Your task to perform on an android device: set an alarm Image 0: 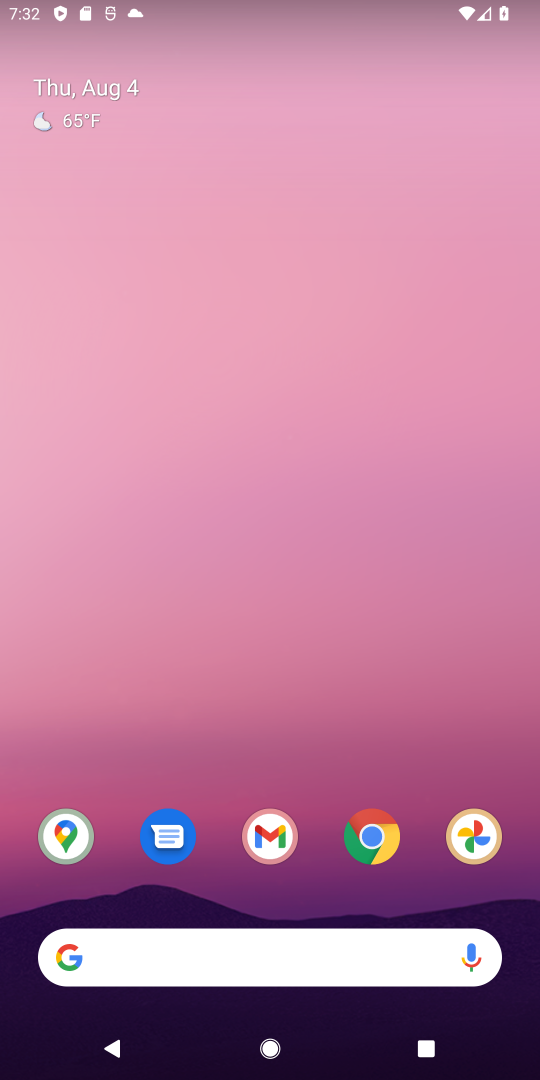
Step 0: drag from (247, 852) to (231, 101)
Your task to perform on an android device: set an alarm Image 1: 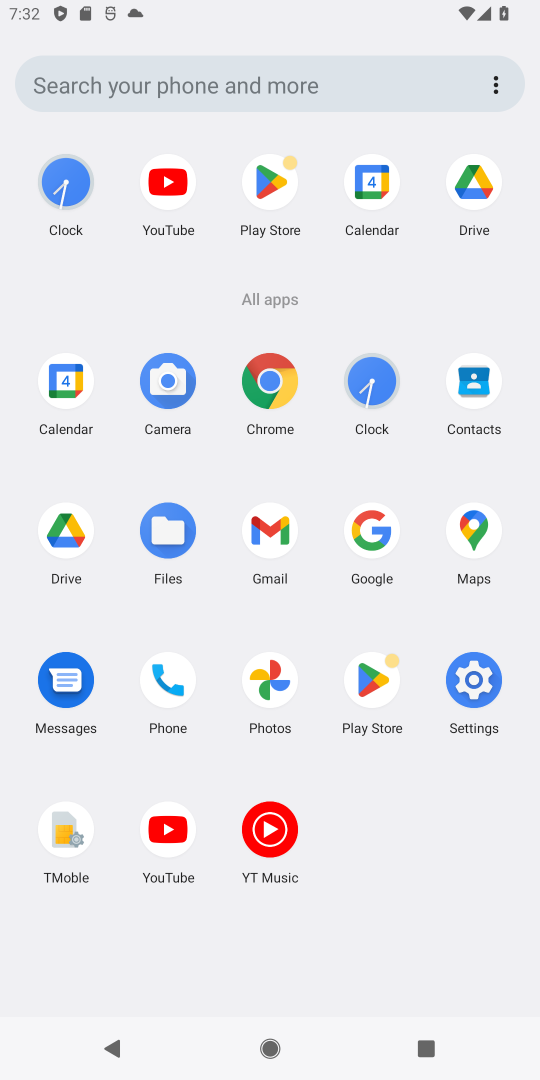
Step 1: click (60, 176)
Your task to perform on an android device: set an alarm Image 2: 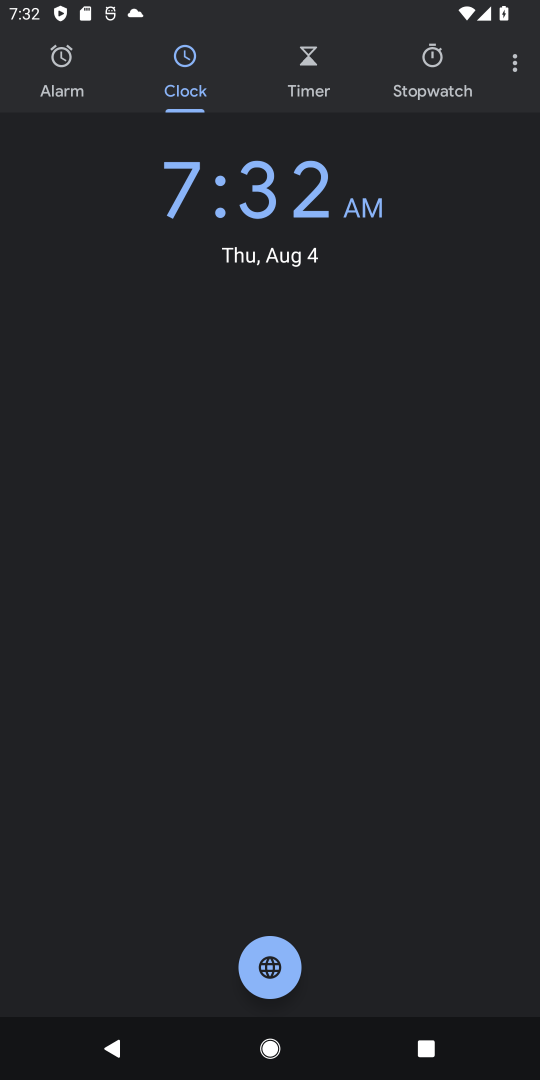
Step 2: click (37, 65)
Your task to perform on an android device: set an alarm Image 3: 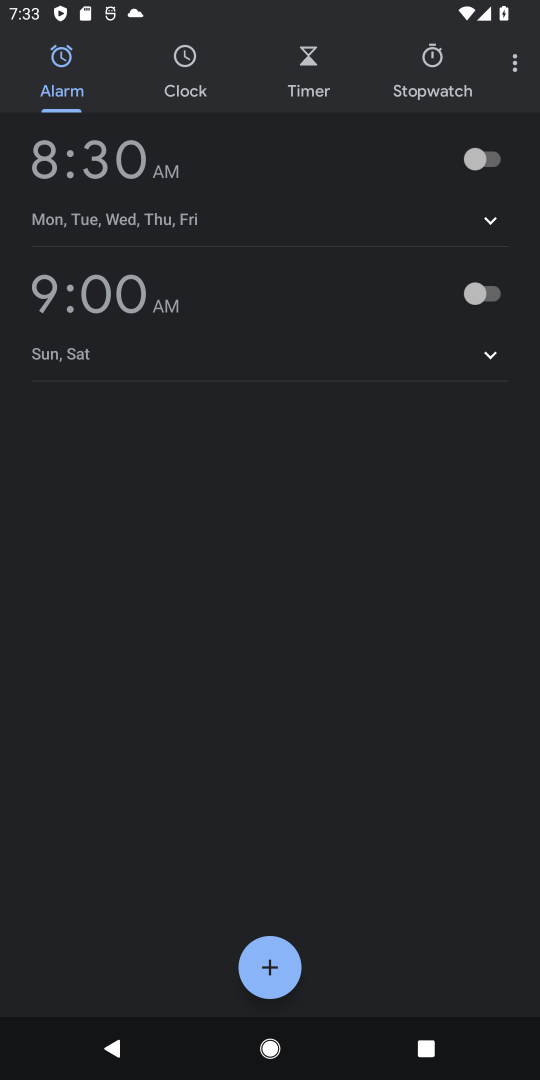
Step 3: click (494, 162)
Your task to perform on an android device: set an alarm Image 4: 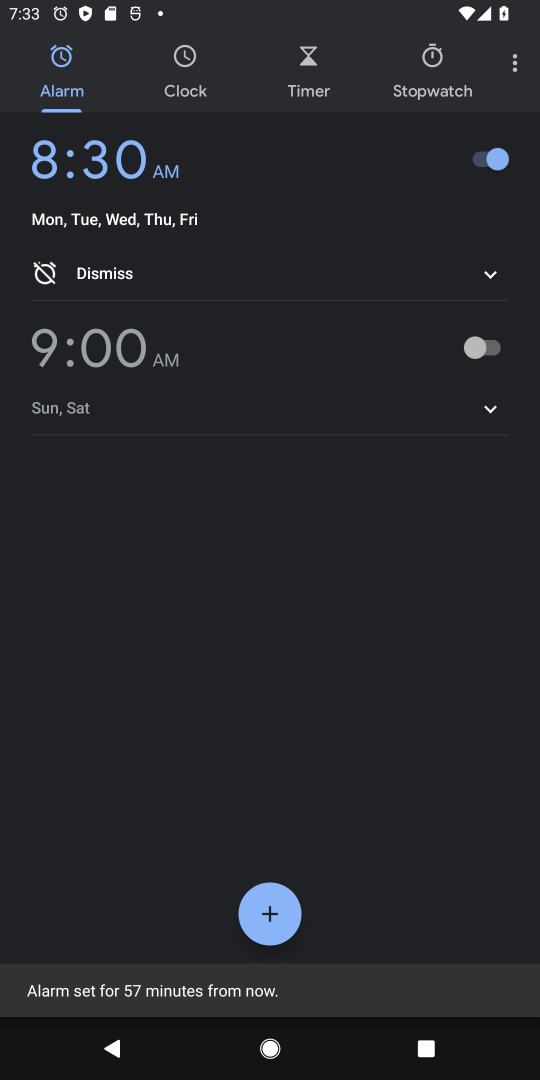
Step 4: task complete